Your task to perform on an android device: delete browsing data in the chrome app Image 0: 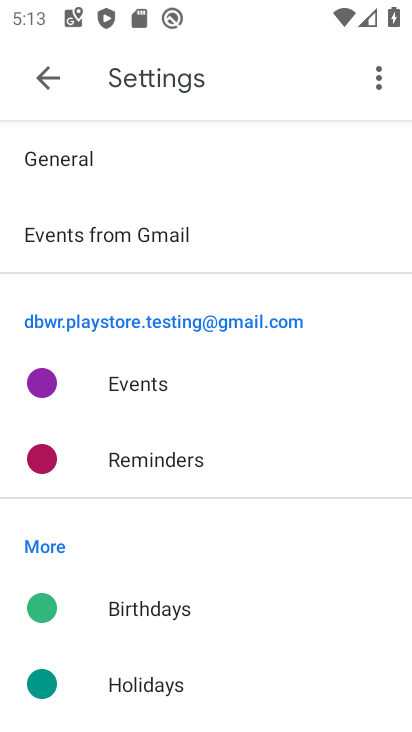
Step 0: press home button
Your task to perform on an android device: delete browsing data in the chrome app Image 1: 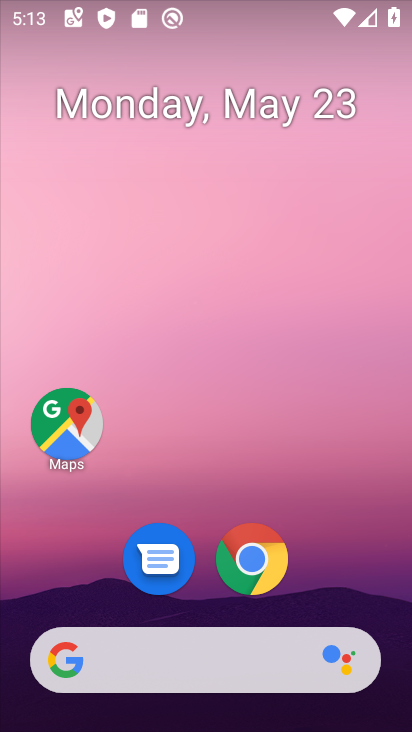
Step 1: drag from (220, 665) to (292, 0)
Your task to perform on an android device: delete browsing data in the chrome app Image 2: 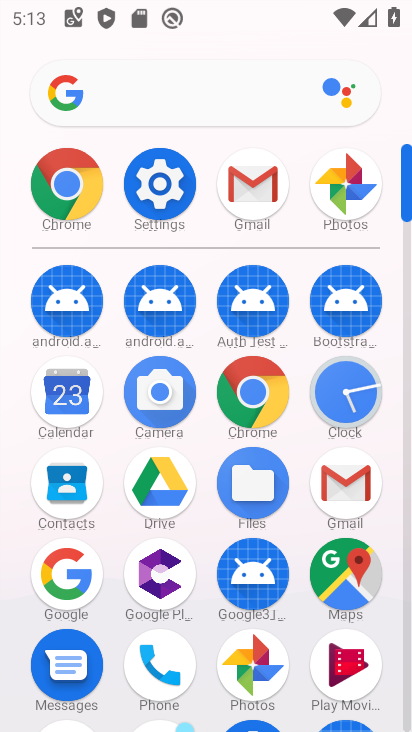
Step 2: click (253, 400)
Your task to perform on an android device: delete browsing data in the chrome app Image 3: 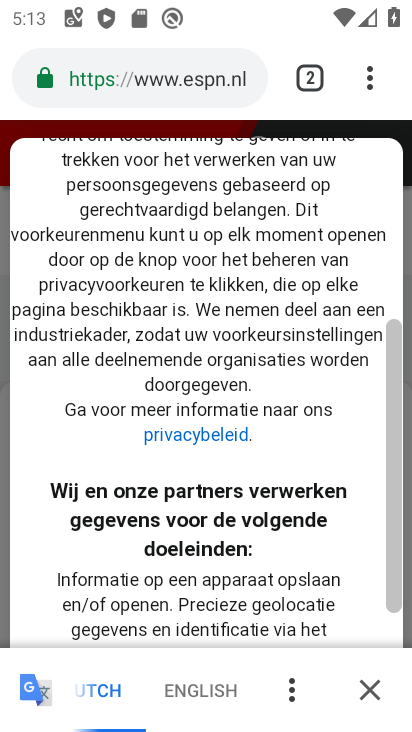
Step 3: drag from (372, 87) to (106, 422)
Your task to perform on an android device: delete browsing data in the chrome app Image 4: 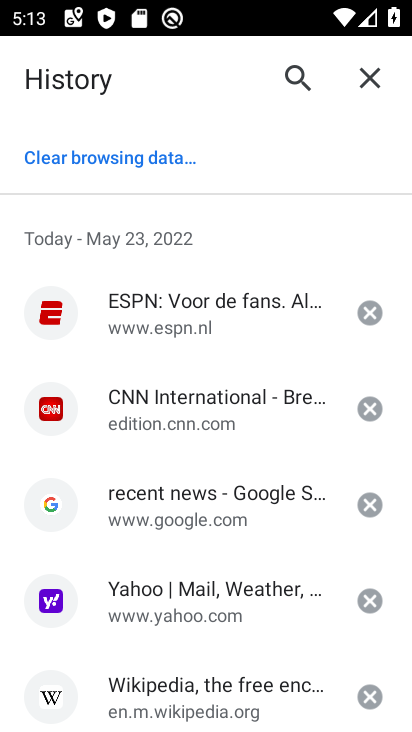
Step 4: click (363, 314)
Your task to perform on an android device: delete browsing data in the chrome app Image 5: 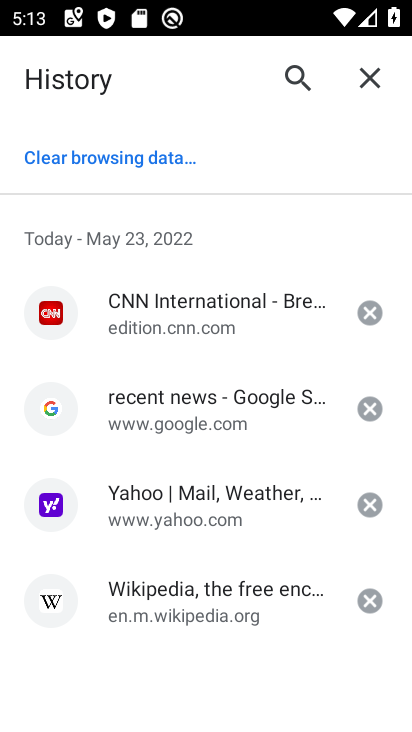
Step 5: click (365, 321)
Your task to perform on an android device: delete browsing data in the chrome app Image 6: 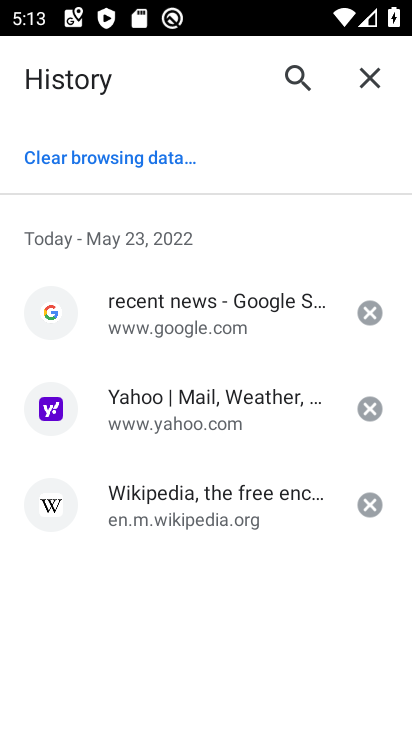
Step 6: click (366, 310)
Your task to perform on an android device: delete browsing data in the chrome app Image 7: 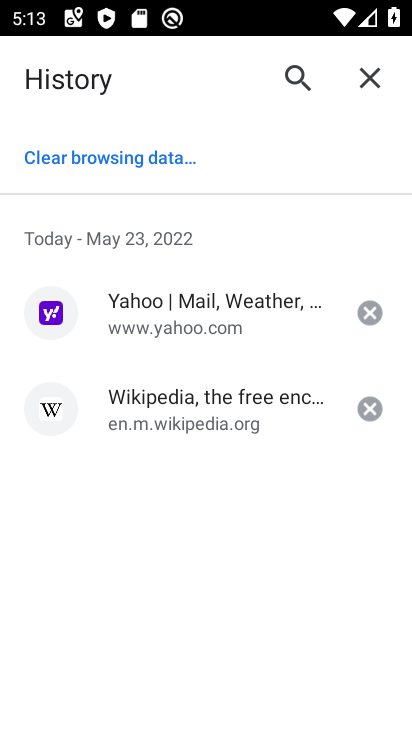
Step 7: click (370, 317)
Your task to perform on an android device: delete browsing data in the chrome app Image 8: 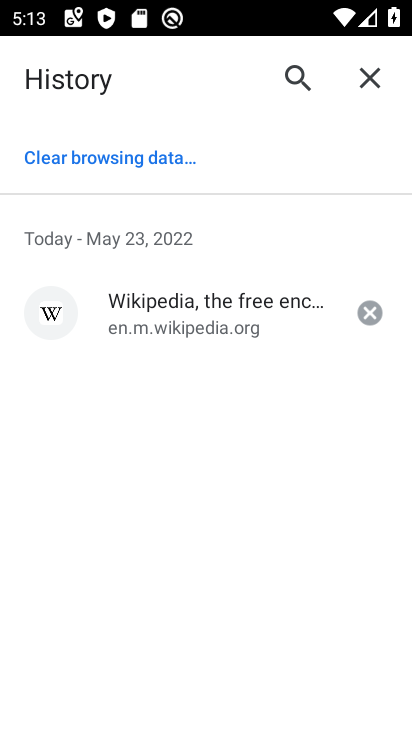
Step 8: click (369, 315)
Your task to perform on an android device: delete browsing data in the chrome app Image 9: 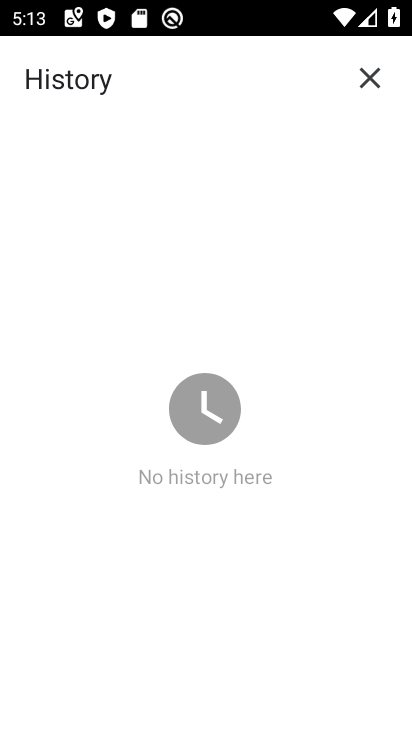
Step 9: task complete